Your task to perform on an android device: turn off sleep mode Image 0: 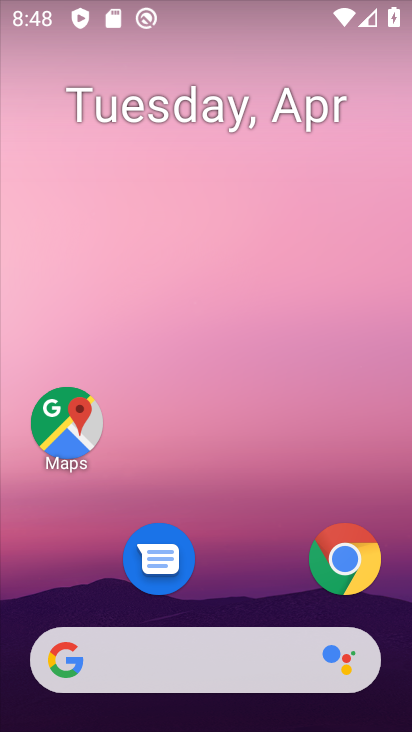
Step 0: drag from (263, 704) to (303, 211)
Your task to perform on an android device: turn off sleep mode Image 1: 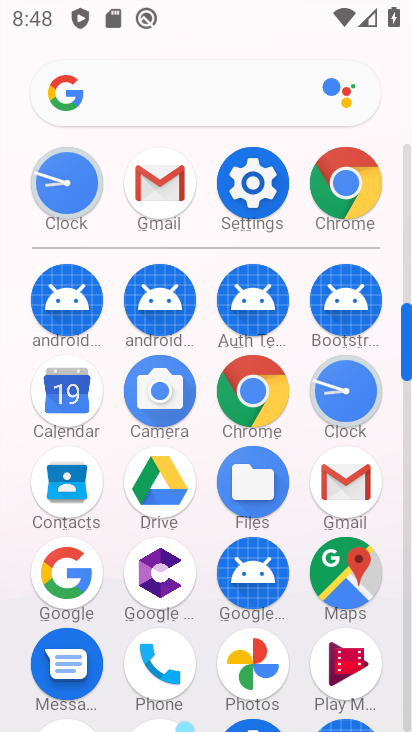
Step 1: click (237, 188)
Your task to perform on an android device: turn off sleep mode Image 2: 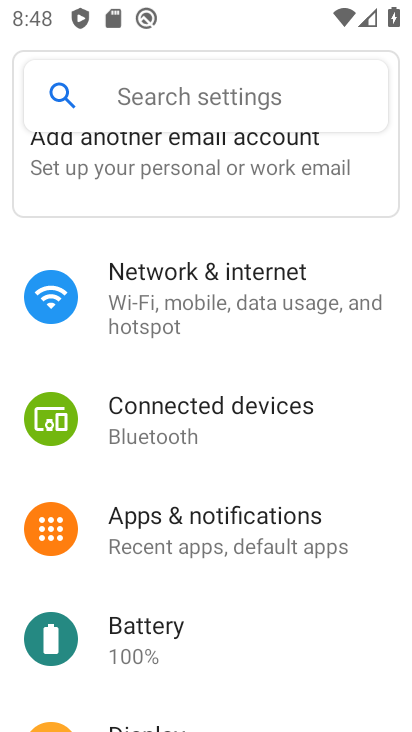
Step 2: click (192, 80)
Your task to perform on an android device: turn off sleep mode Image 3: 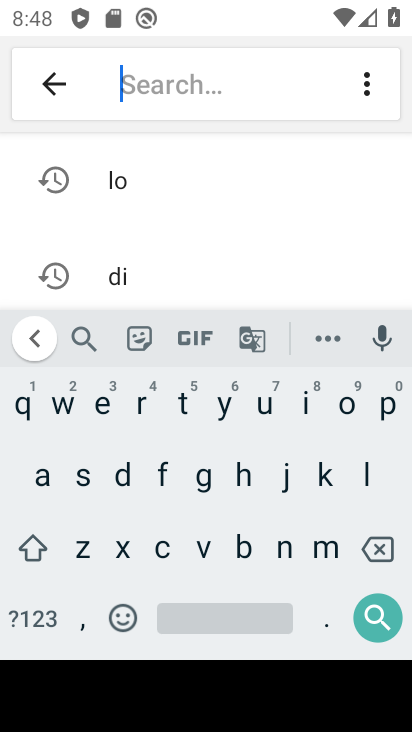
Step 3: click (81, 479)
Your task to perform on an android device: turn off sleep mode Image 4: 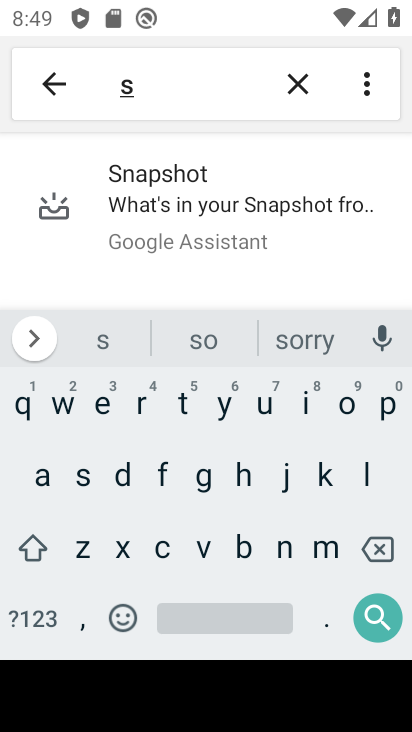
Step 4: click (366, 477)
Your task to perform on an android device: turn off sleep mode Image 5: 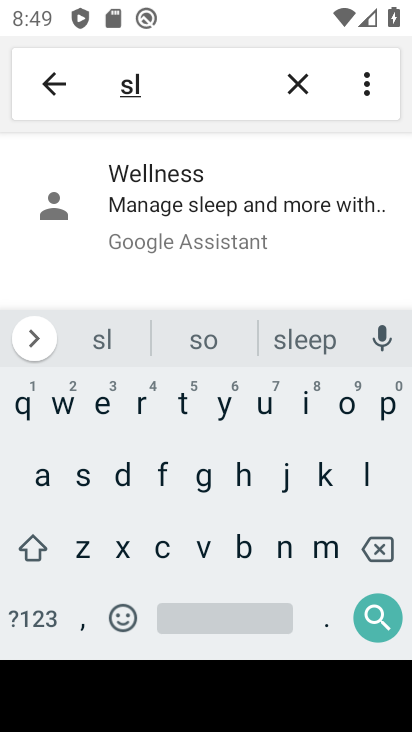
Step 5: click (98, 404)
Your task to perform on an android device: turn off sleep mode Image 6: 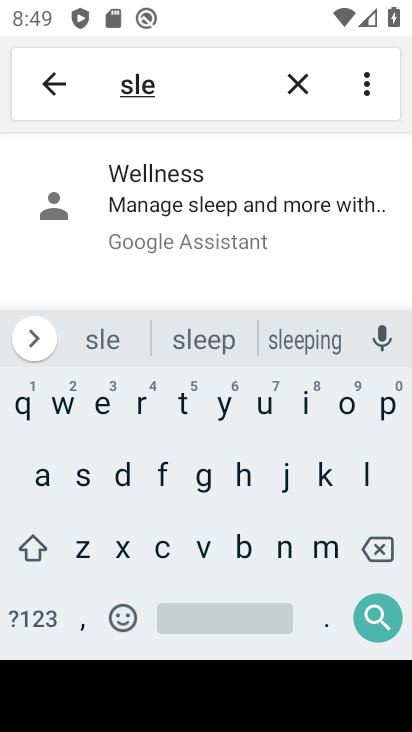
Step 6: click (98, 404)
Your task to perform on an android device: turn off sleep mode Image 7: 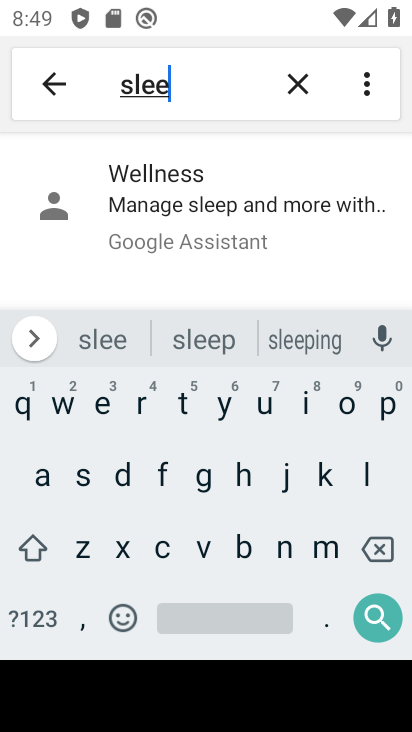
Step 7: click (192, 341)
Your task to perform on an android device: turn off sleep mode Image 8: 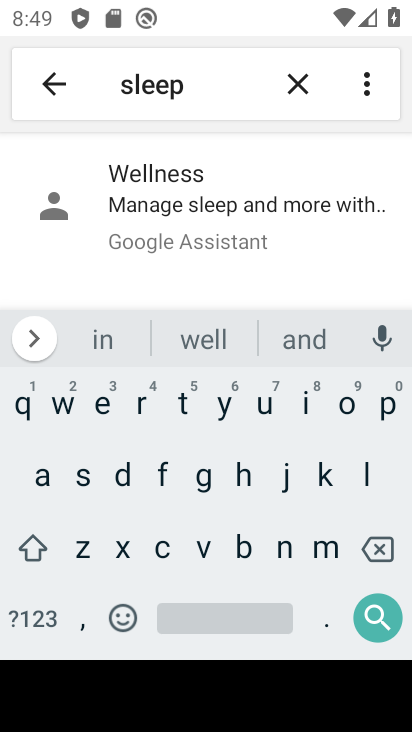
Step 8: click (199, 224)
Your task to perform on an android device: turn off sleep mode Image 9: 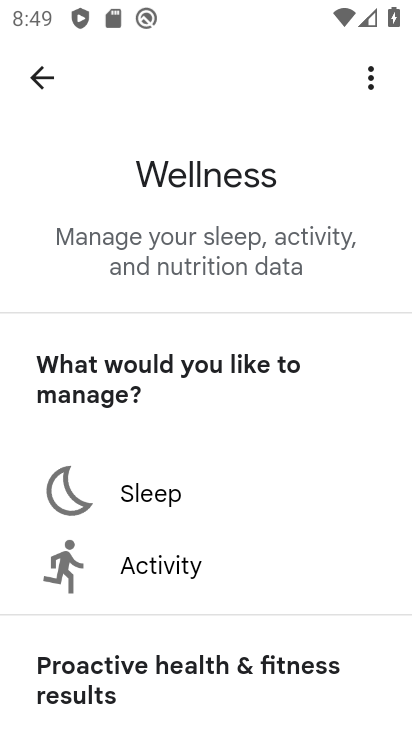
Step 9: click (143, 500)
Your task to perform on an android device: turn off sleep mode Image 10: 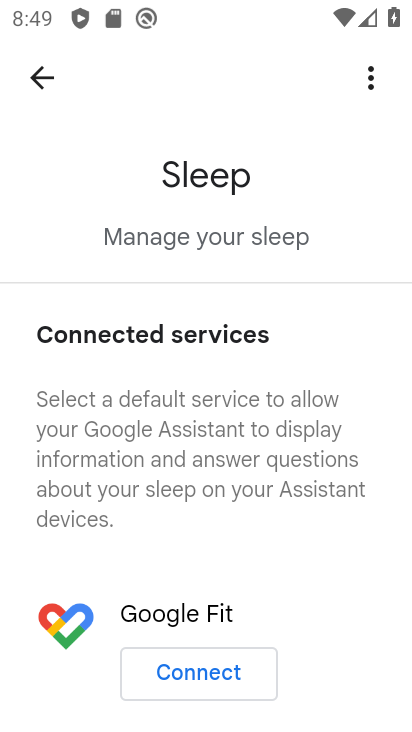
Step 10: task complete